Your task to perform on an android device: What's on my calendar tomorrow? Image 0: 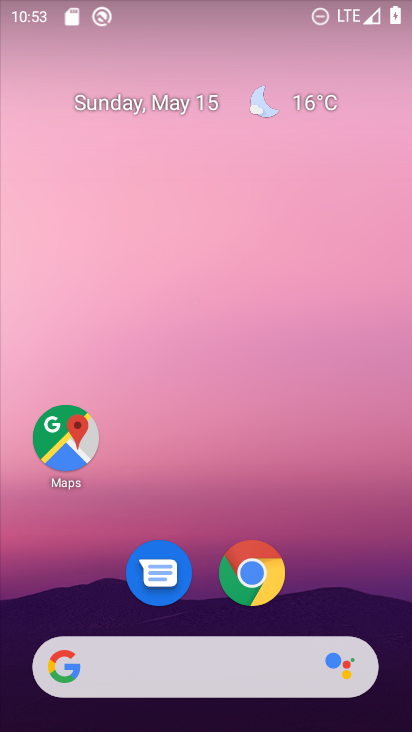
Step 0: drag from (329, 590) to (370, 181)
Your task to perform on an android device: What's on my calendar tomorrow? Image 1: 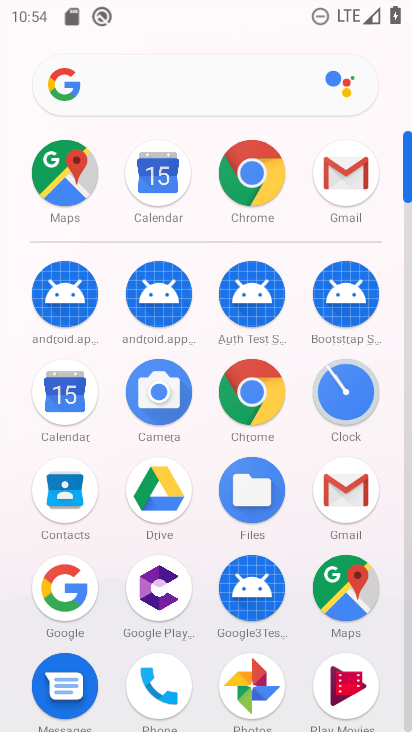
Step 1: click (73, 401)
Your task to perform on an android device: What's on my calendar tomorrow? Image 2: 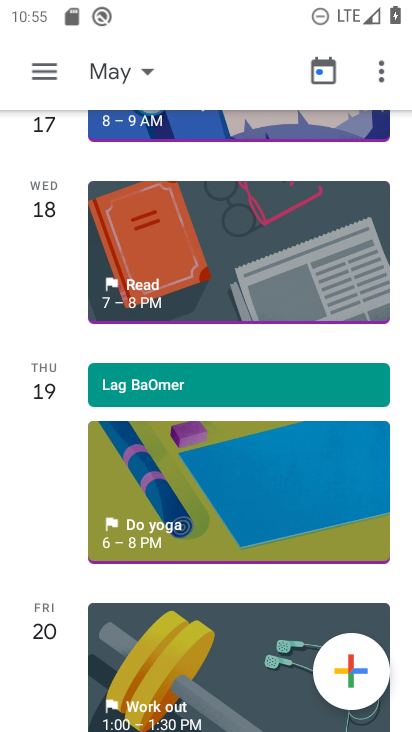
Step 2: click (154, 77)
Your task to perform on an android device: What's on my calendar tomorrow? Image 3: 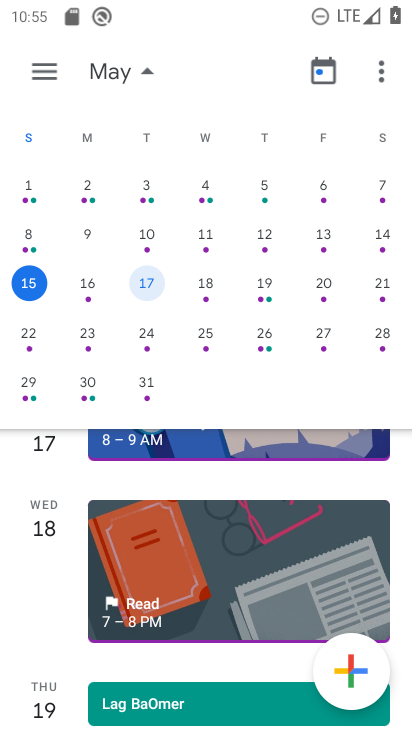
Step 3: click (137, 282)
Your task to perform on an android device: What's on my calendar tomorrow? Image 4: 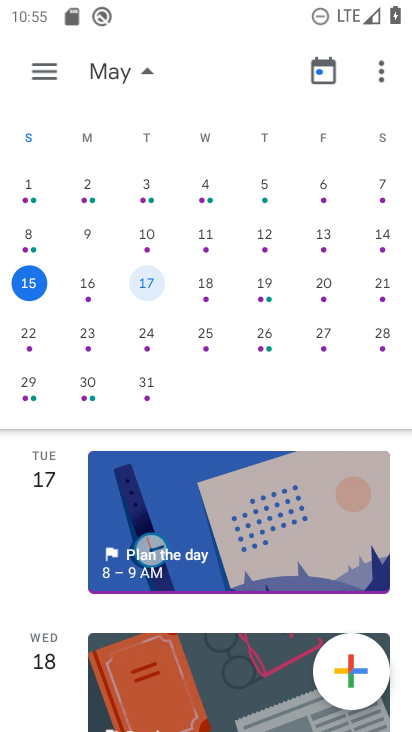
Step 4: click (150, 86)
Your task to perform on an android device: What's on my calendar tomorrow? Image 5: 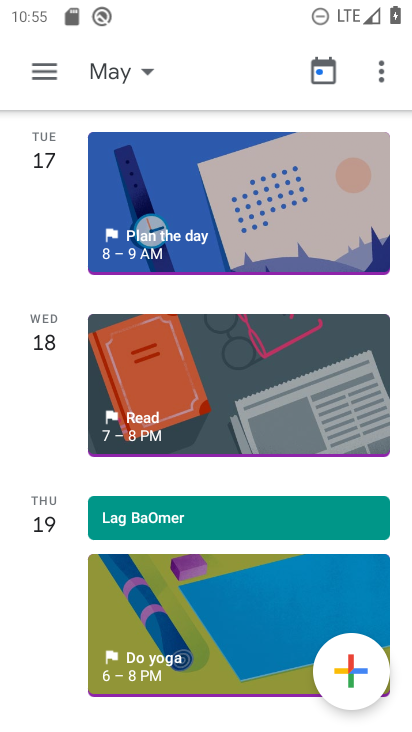
Step 5: task complete